Your task to perform on an android device: check storage Image 0: 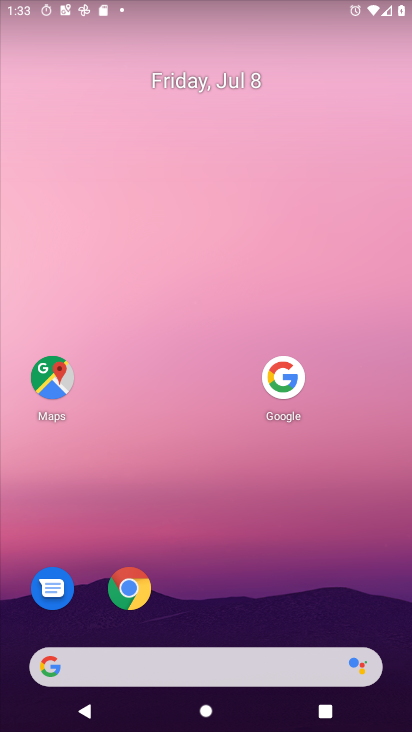
Step 0: drag from (219, 676) to (347, 99)
Your task to perform on an android device: check storage Image 1: 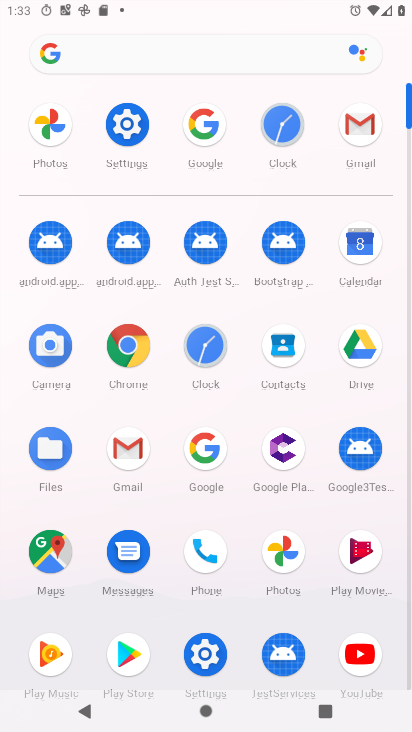
Step 1: click (125, 124)
Your task to perform on an android device: check storage Image 2: 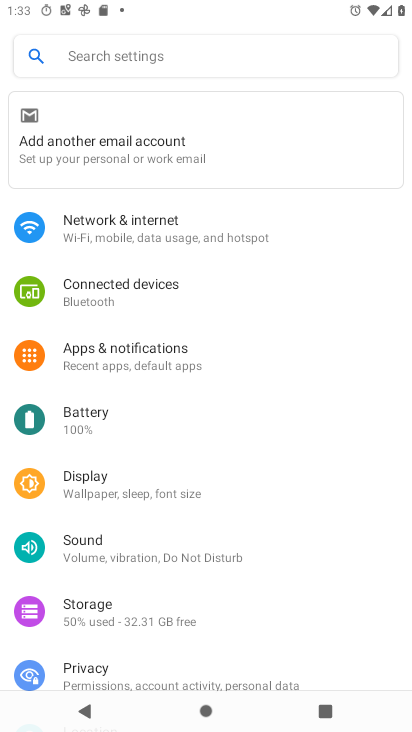
Step 2: click (107, 615)
Your task to perform on an android device: check storage Image 3: 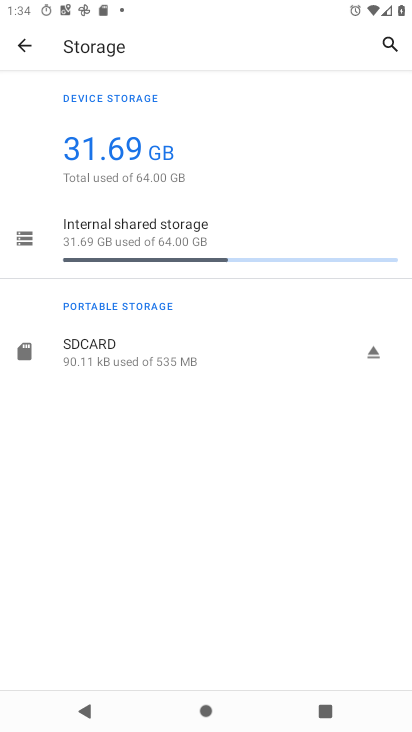
Step 3: task complete